Your task to perform on an android device: change the clock display to show seconds Image 0: 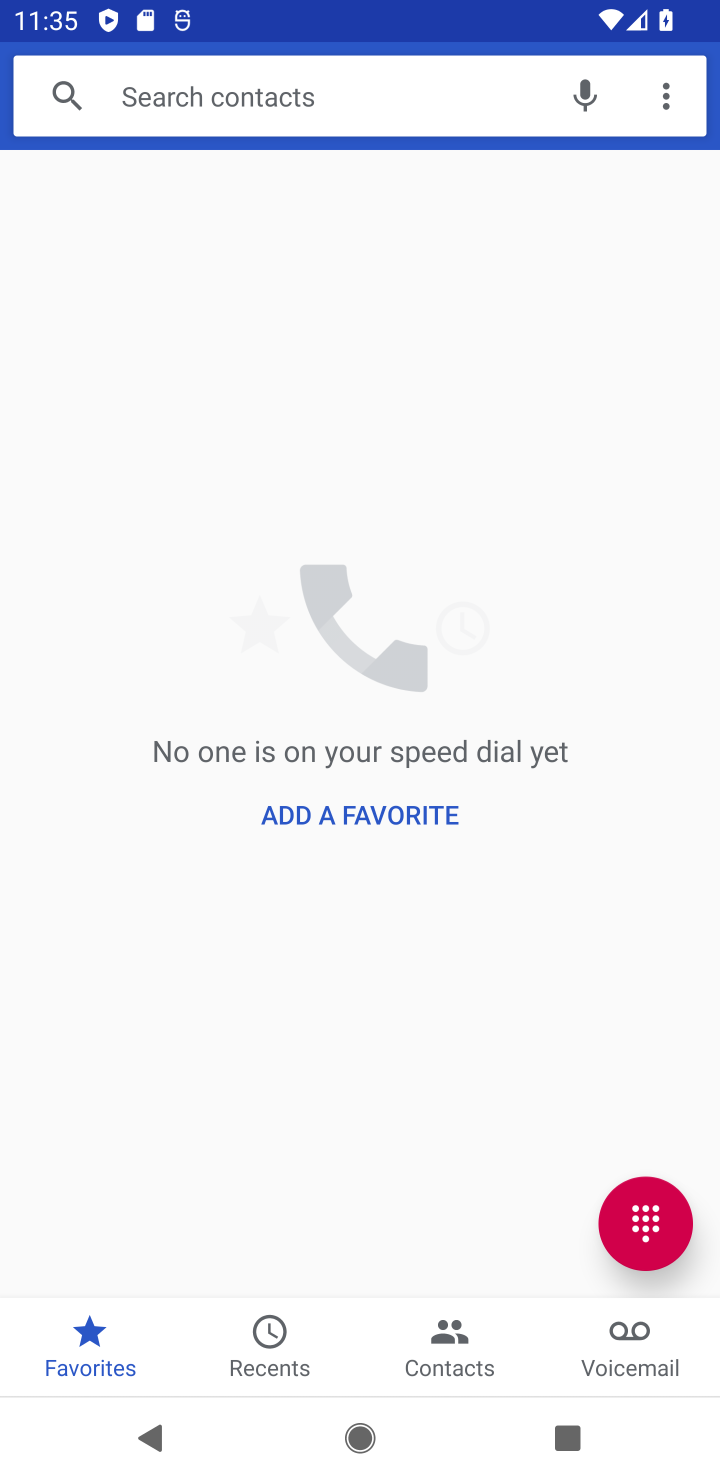
Step 0: press home button
Your task to perform on an android device: change the clock display to show seconds Image 1: 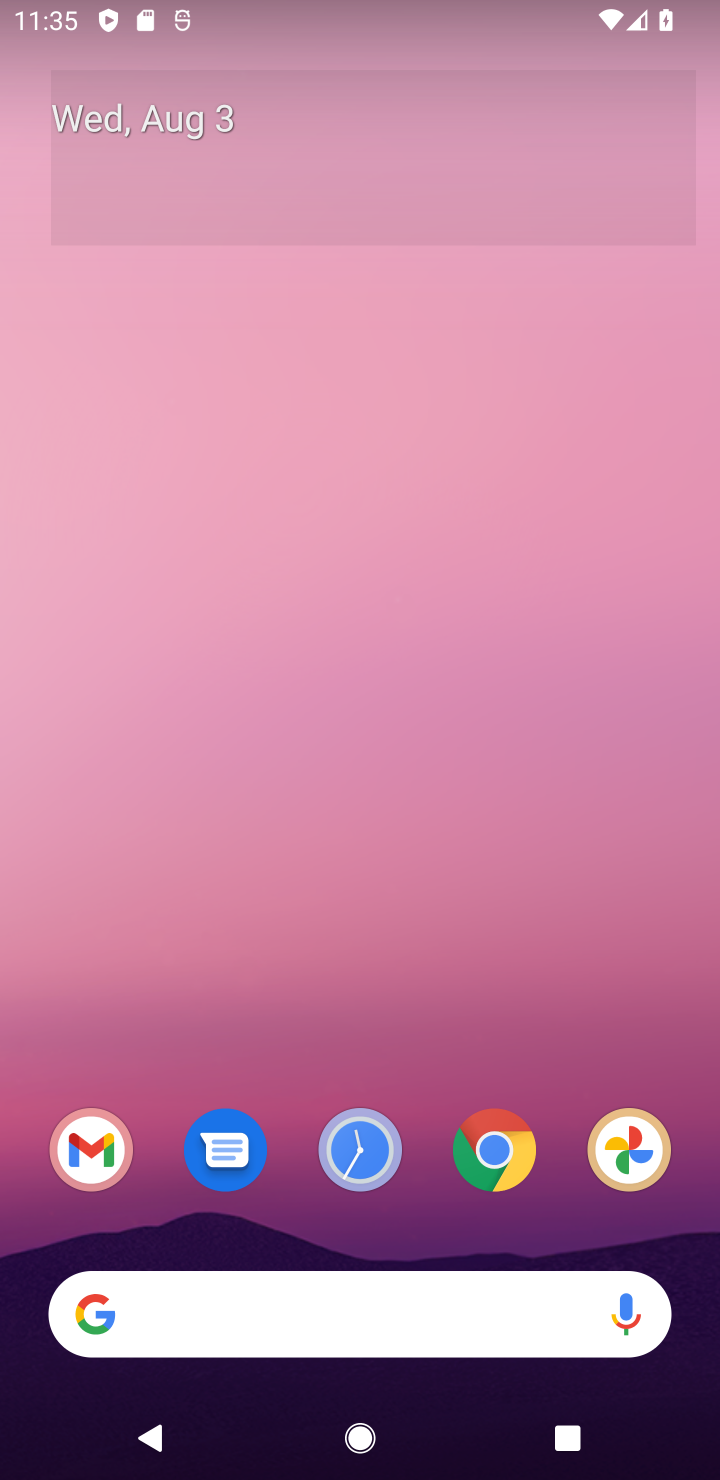
Step 1: drag from (421, 1114) to (417, 309)
Your task to perform on an android device: change the clock display to show seconds Image 2: 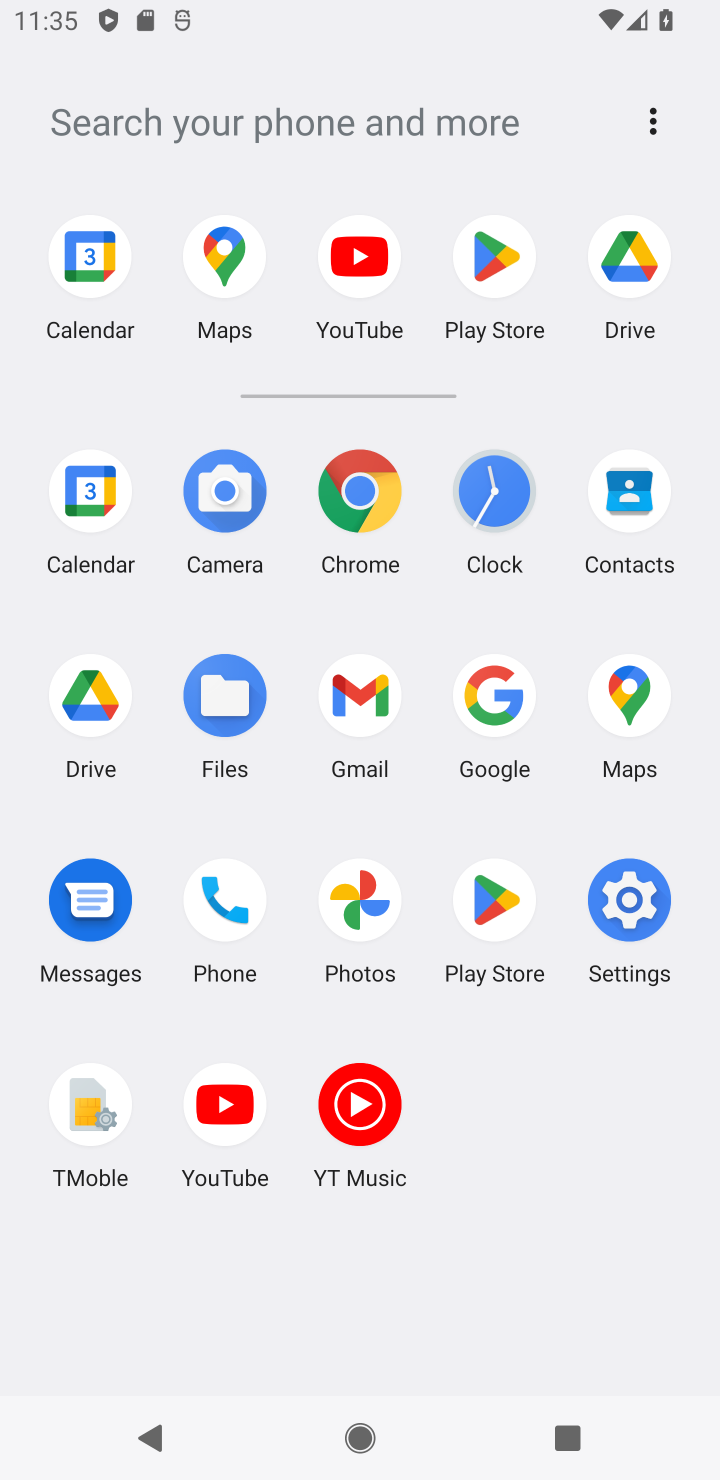
Step 2: click (489, 504)
Your task to perform on an android device: change the clock display to show seconds Image 3: 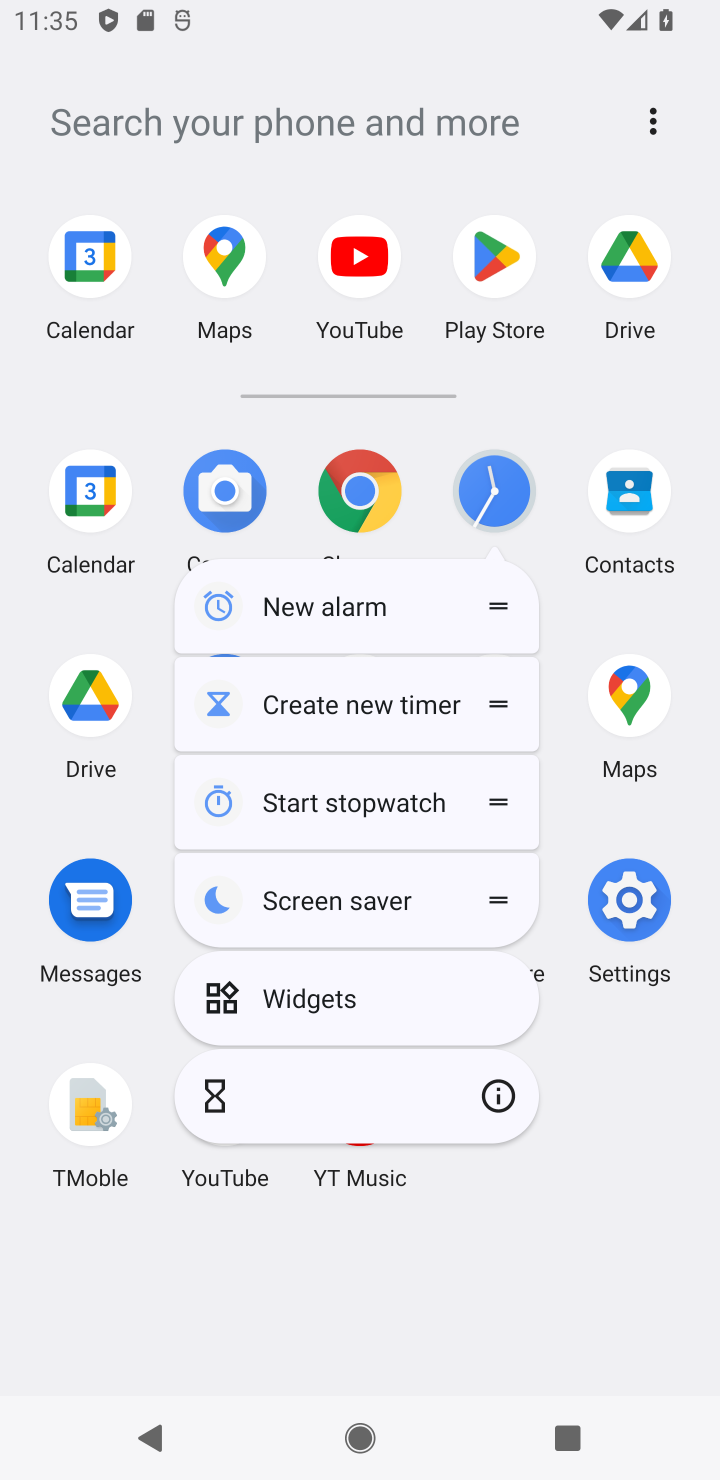
Step 3: click (489, 504)
Your task to perform on an android device: change the clock display to show seconds Image 4: 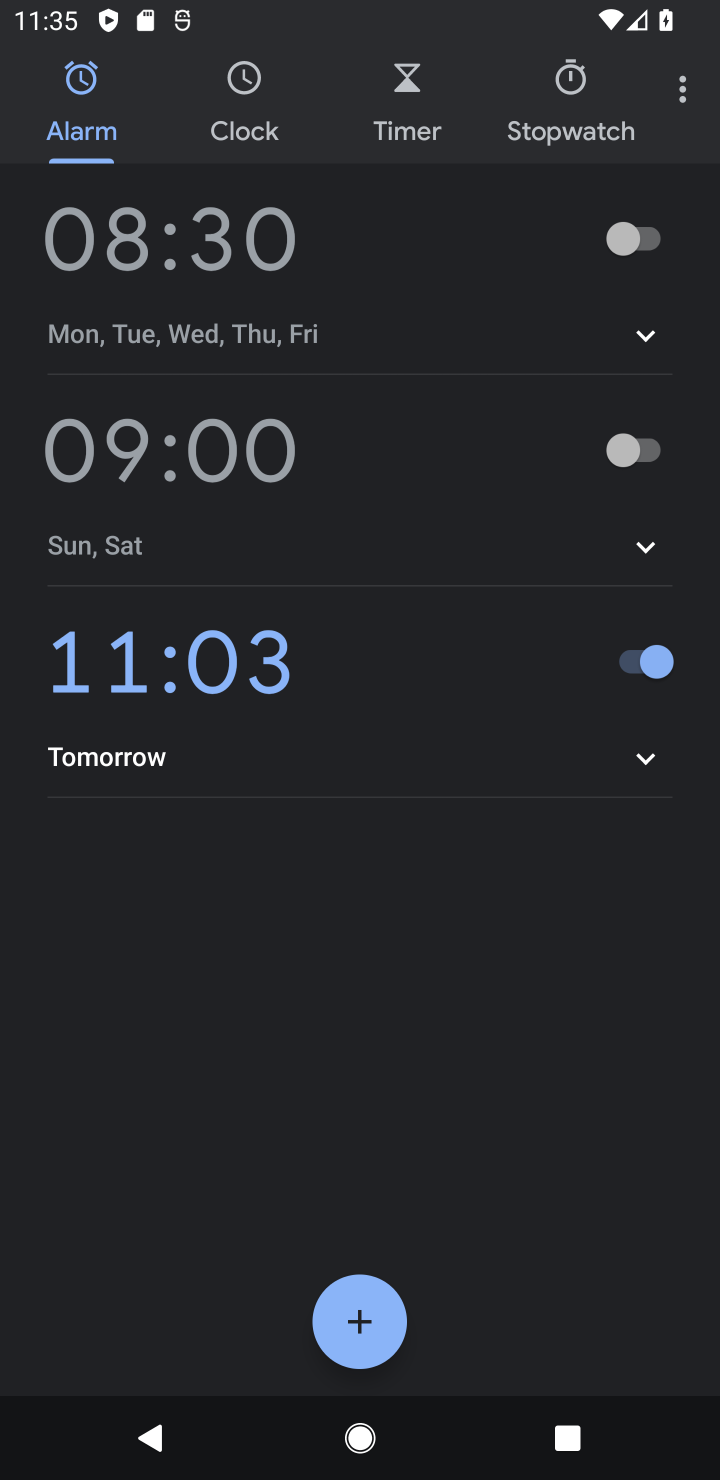
Step 4: click (684, 87)
Your task to perform on an android device: change the clock display to show seconds Image 5: 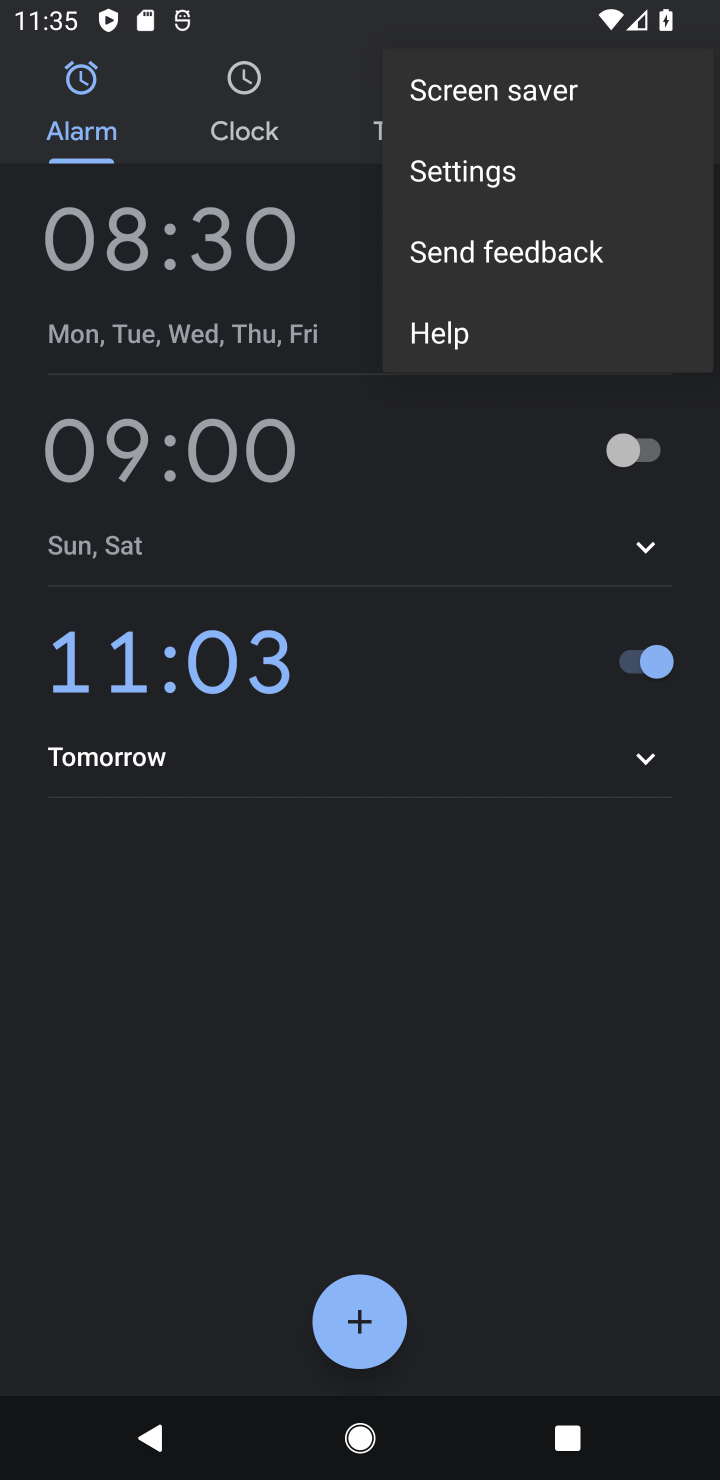
Step 5: click (503, 176)
Your task to perform on an android device: change the clock display to show seconds Image 6: 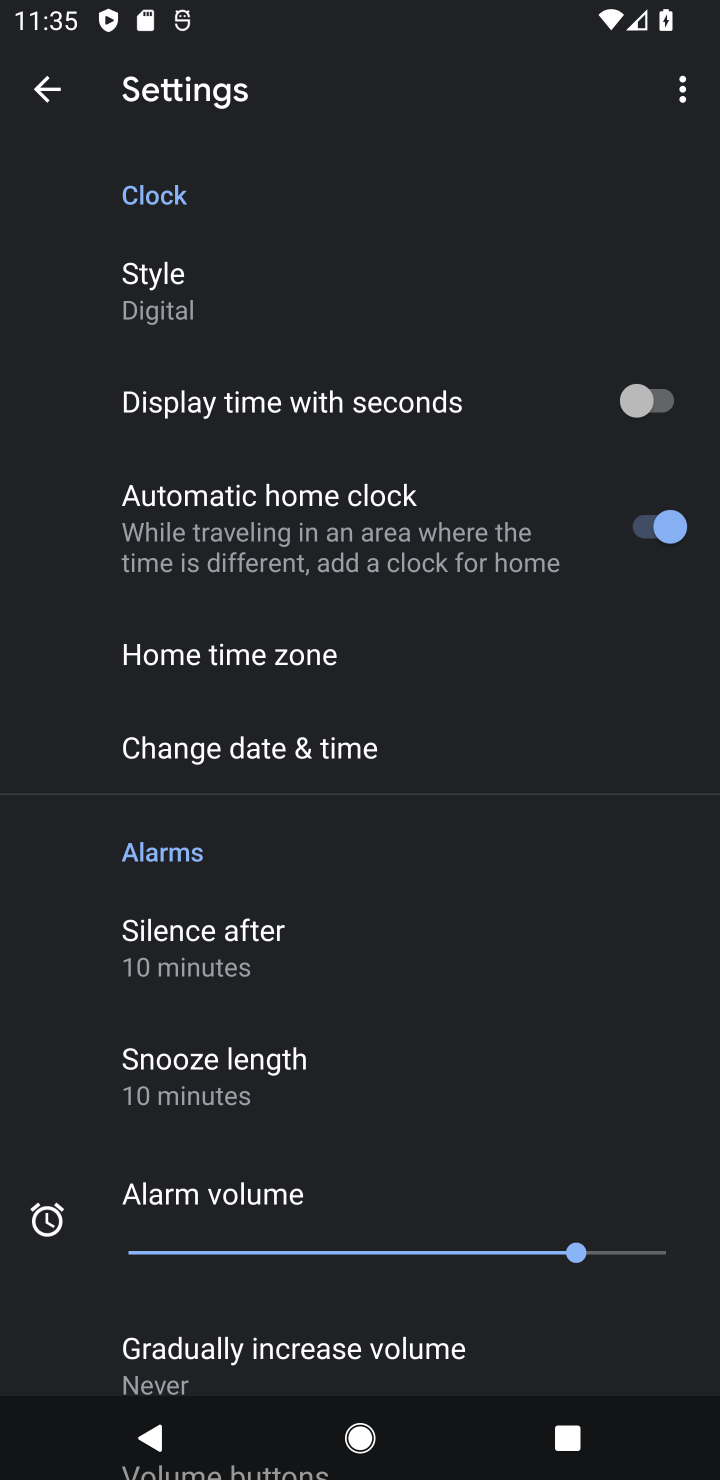
Step 6: click (639, 407)
Your task to perform on an android device: change the clock display to show seconds Image 7: 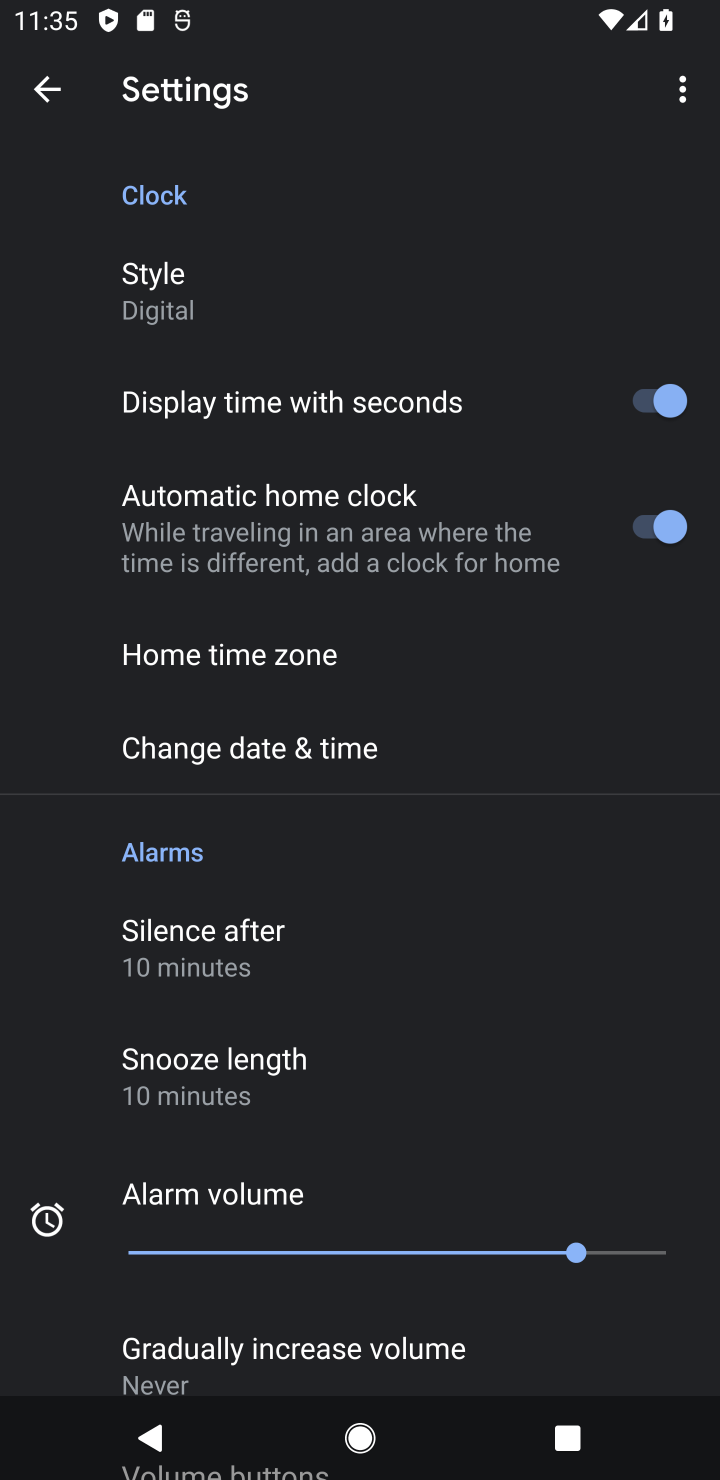
Step 7: task complete